Your task to perform on an android device: Open battery settings Image 0: 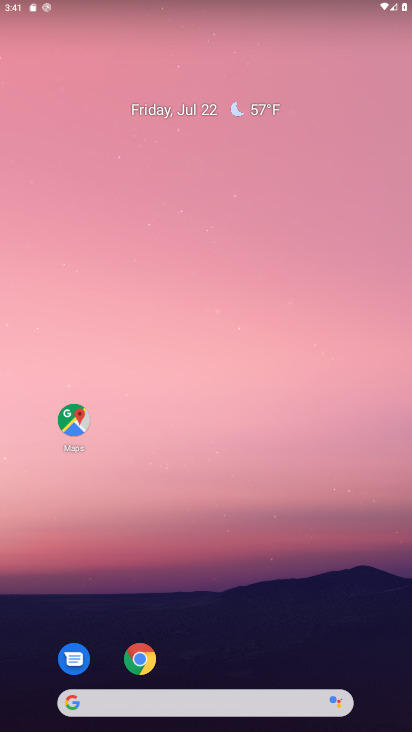
Step 0: drag from (227, 654) to (258, 369)
Your task to perform on an android device: Open battery settings Image 1: 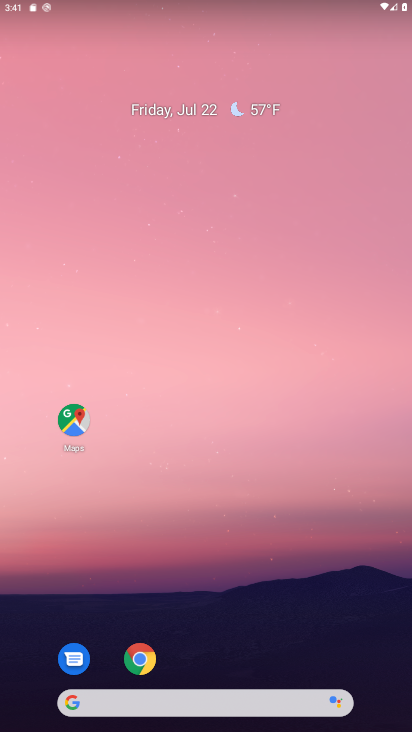
Step 1: drag from (269, 625) to (199, 4)
Your task to perform on an android device: Open battery settings Image 2: 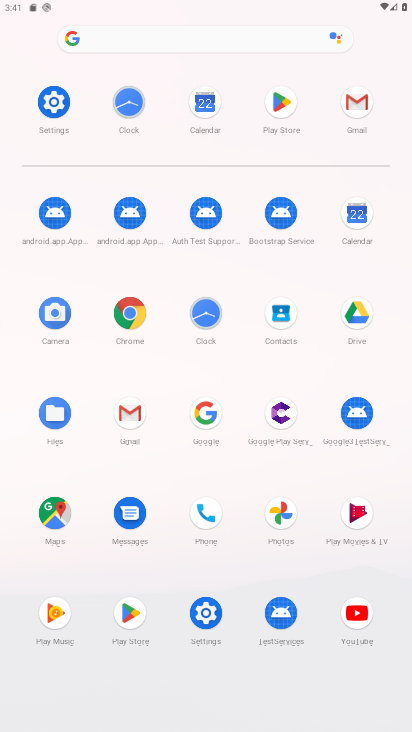
Step 2: click (52, 114)
Your task to perform on an android device: Open battery settings Image 3: 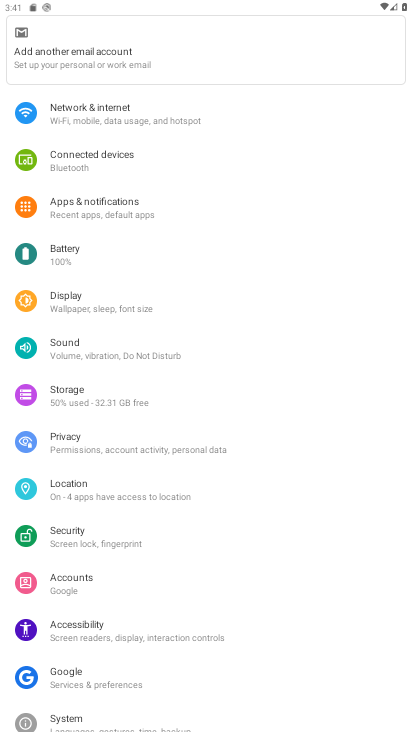
Step 3: click (80, 254)
Your task to perform on an android device: Open battery settings Image 4: 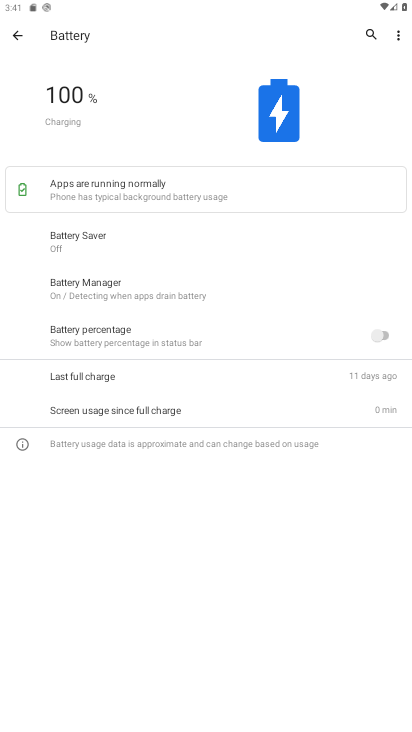
Step 4: task complete